Your task to perform on an android device: Open eBay Image 0: 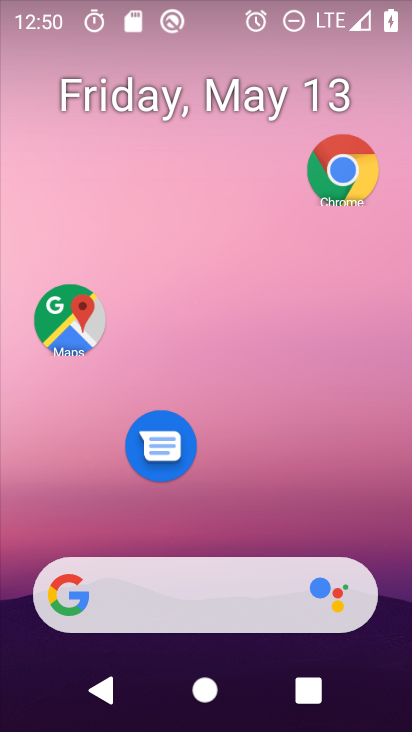
Step 0: drag from (226, 560) to (345, 39)
Your task to perform on an android device: Open eBay Image 1: 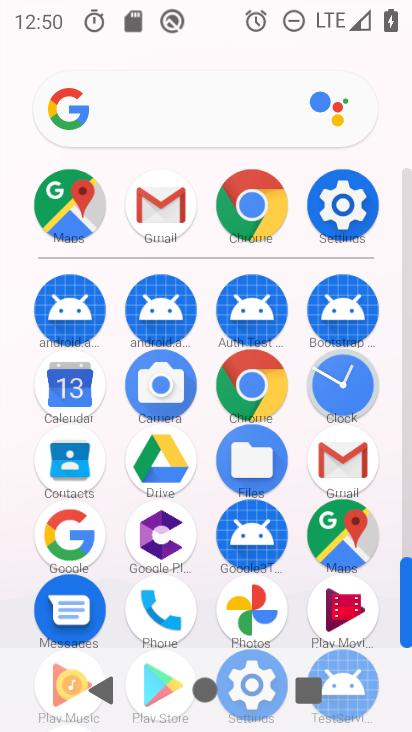
Step 1: click (257, 214)
Your task to perform on an android device: Open eBay Image 2: 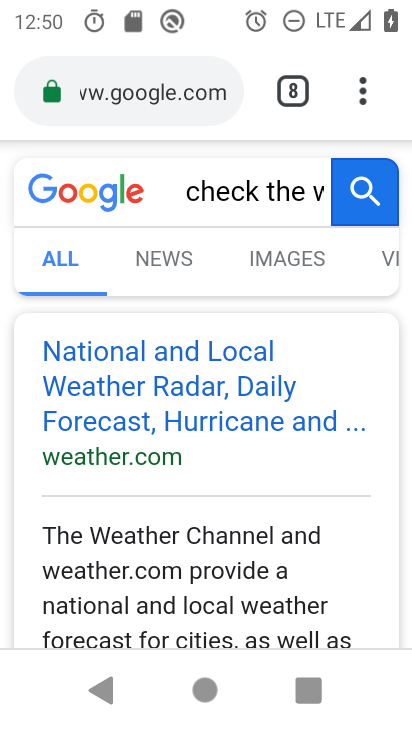
Step 2: click (161, 84)
Your task to perform on an android device: Open eBay Image 3: 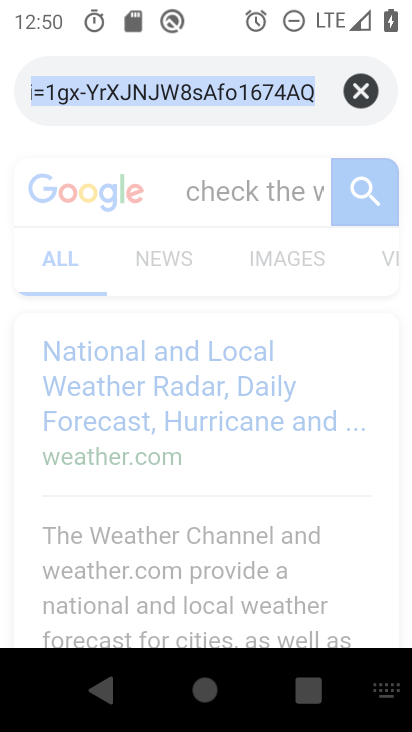
Step 3: click (361, 88)
Your task to perform on an android device: Open eBay Image 4: 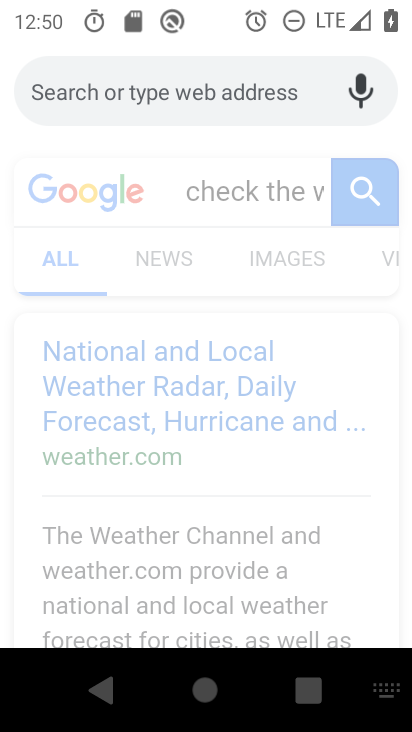
Step 4: type "ebay"
Your task to perform on an android device: Open eBay Image 5: 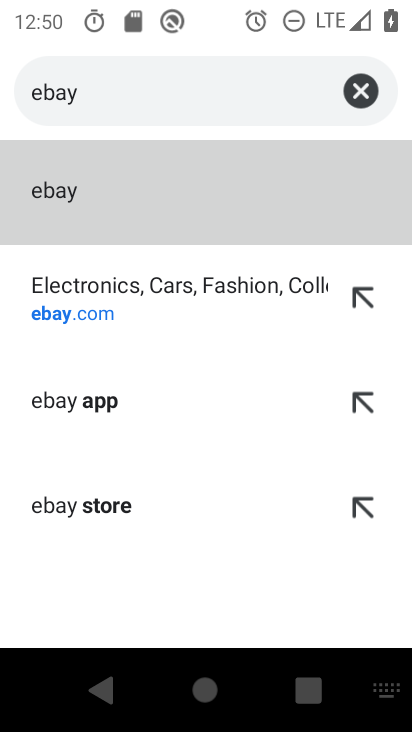
Step 5: click (220, 289)
Your task to perform on an android device: Open eBay Image 6: 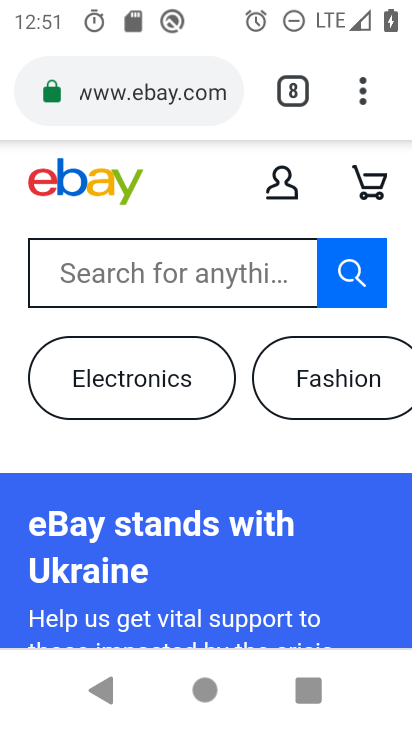
Step 6: task complete